Your task to perform on an android device: When is my next meeting? Image 0: 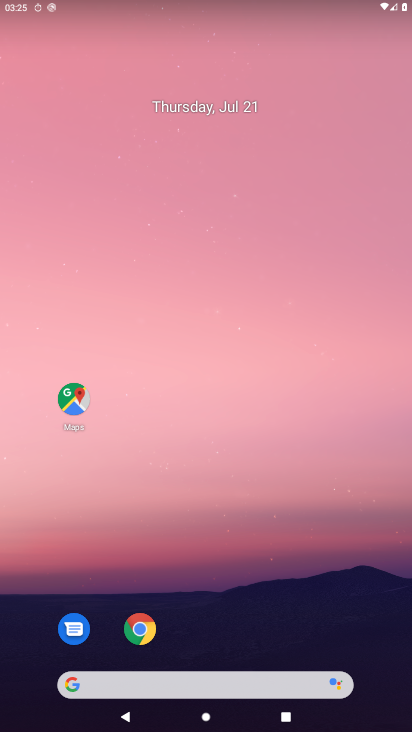
Step 0: drag from (22, 692) to (190, 83)
Your task to perform on an android device: When is my next meeting? Image 1: 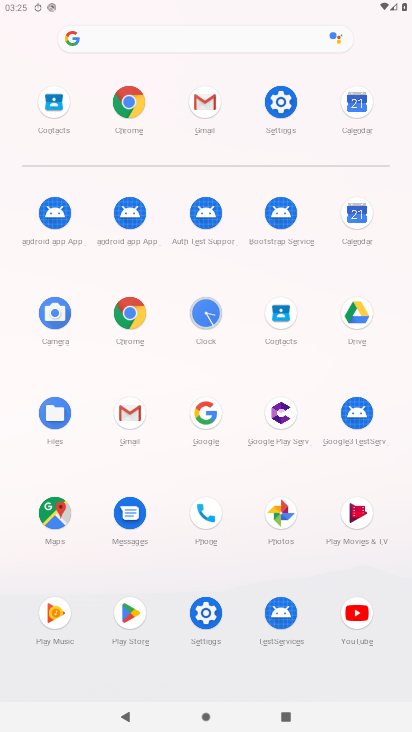
Step 1: click (346, 220)
Your task to perform on an android device: When is my next meeting? Image 2: 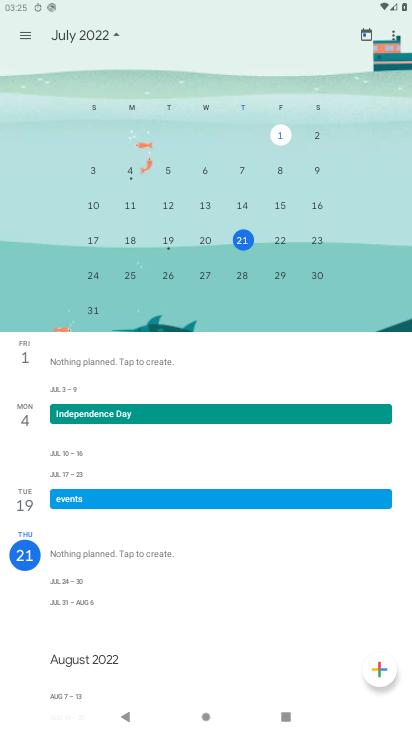
Step 2: task complete